Your task to perform on an android device: Empty the shopping cart on costco. Add macbook to the cart on costco Image 0: 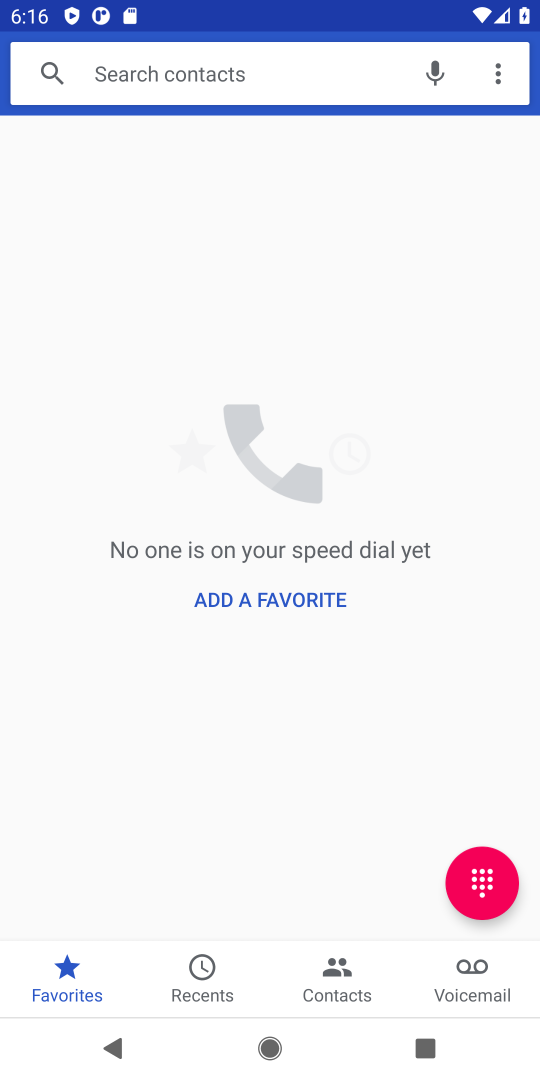
Step 0: press home button
Your task to perform on an android device: Empty the shopping cart on costco. Add macbook to the cart on costco Image 1: 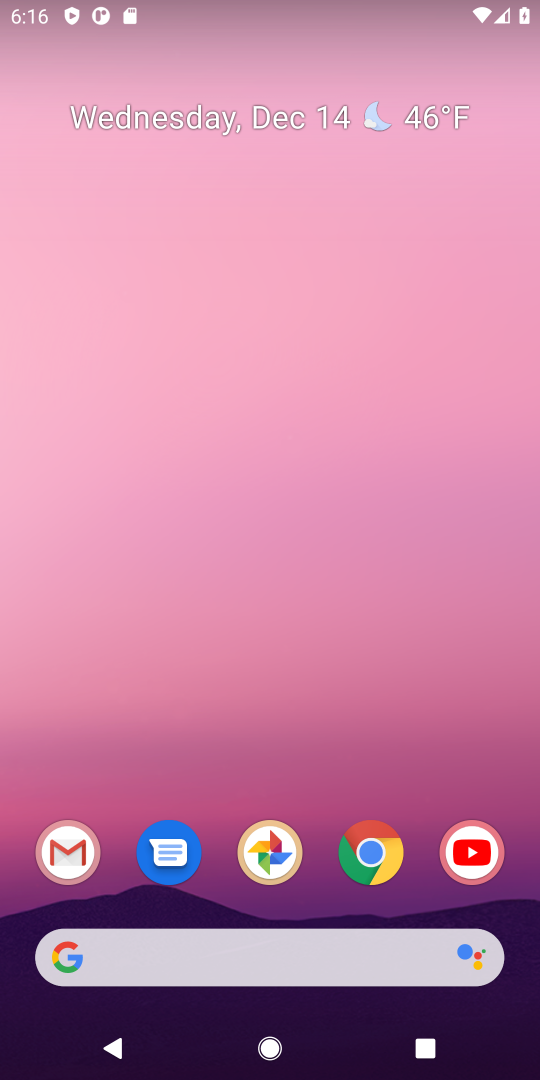
Step 1: click (364, 838)
Your task to perform on an android device: Empty the shopping cart on costco. Add macbook to the cart on costco Image 2: 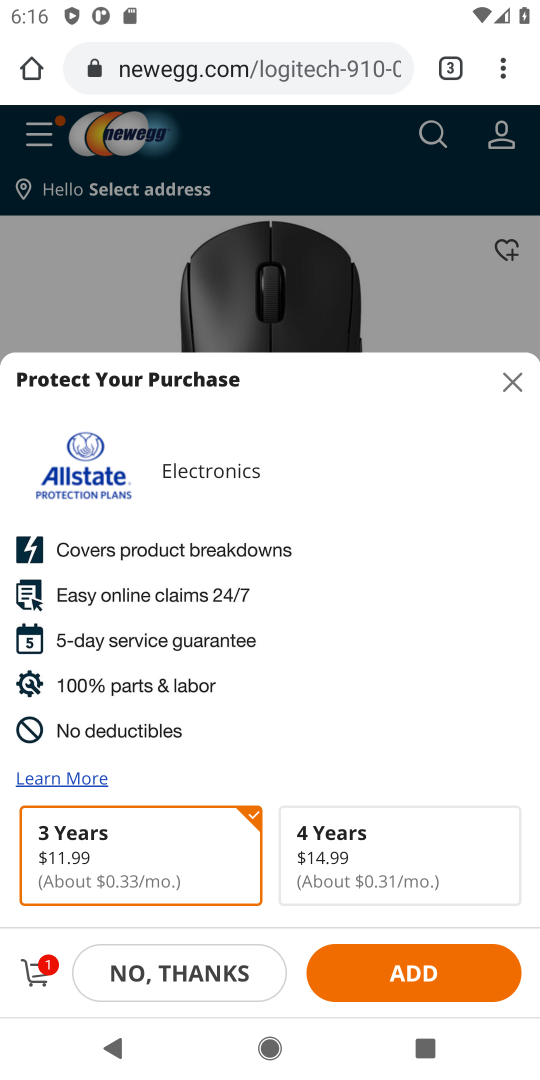
Step 2: click (452, 68)
Your task to perform on an android device: Empty the shopping cart on costco. Add macbook to the cart on costco Image 3: 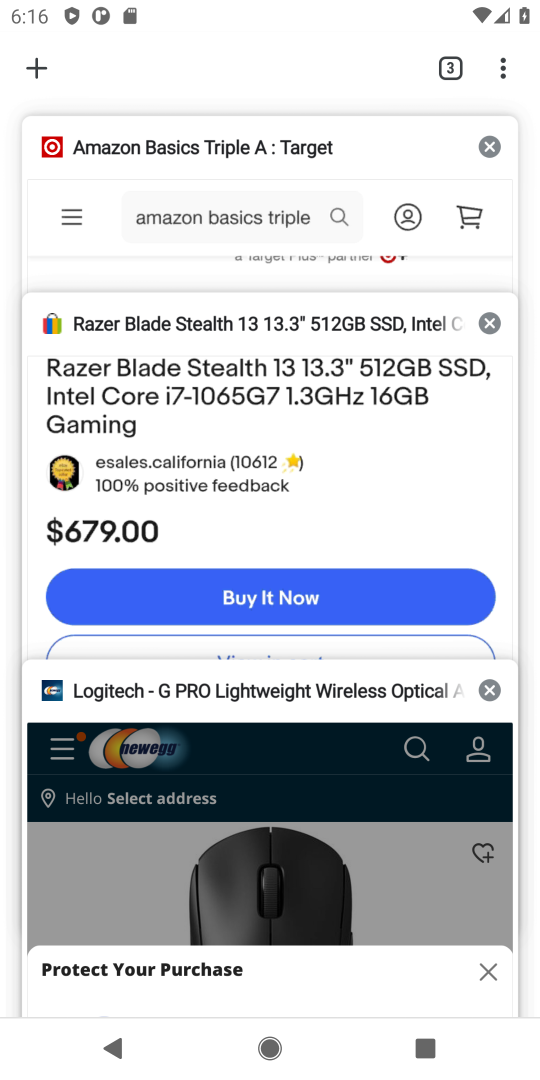
Step 3: click (30, 69)
Your task to perform on an android device: Empty the shopping cart on costco. Add macbook to the cart on costco Image 4: 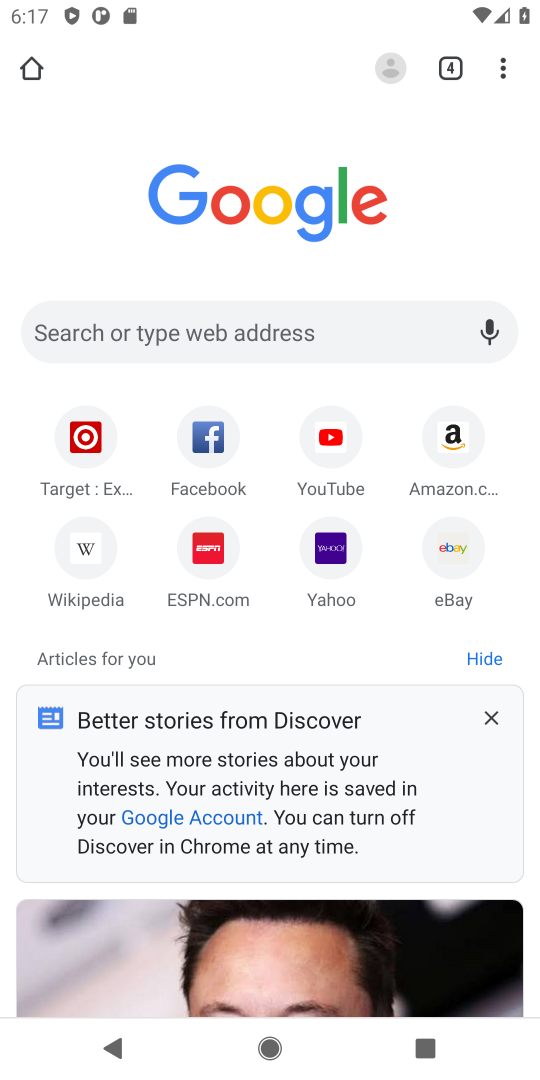
Step 4: click (184, 324)
Your task to perform on an android device: Empty the shopping cart on costco. Add macbook to the cart on costco Image 5: 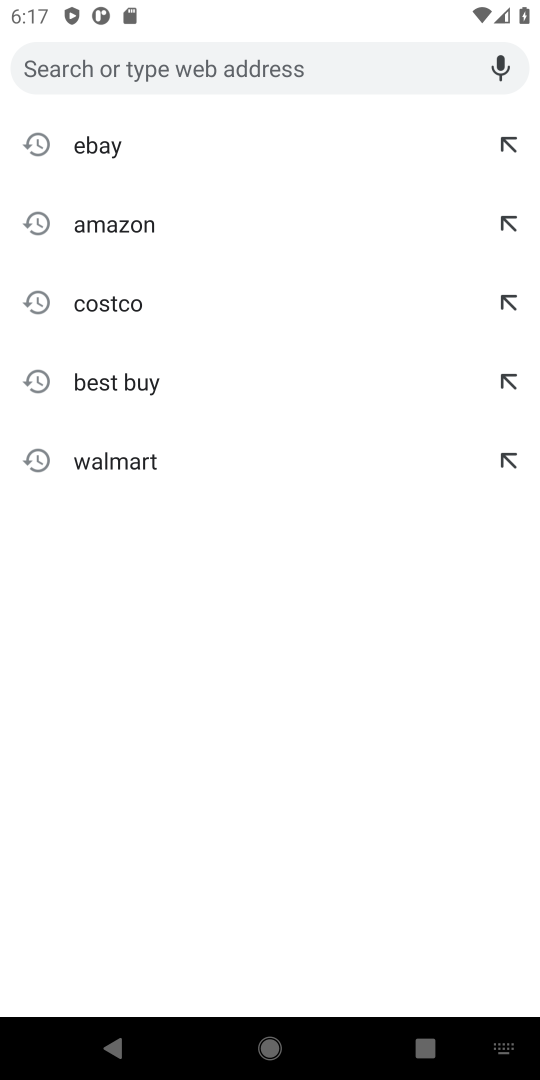
Step 5: click (108, 304)
Your task to perform on an android device: Empty the shopping cart on costco. Add macbook to the cart on costco Image 6: 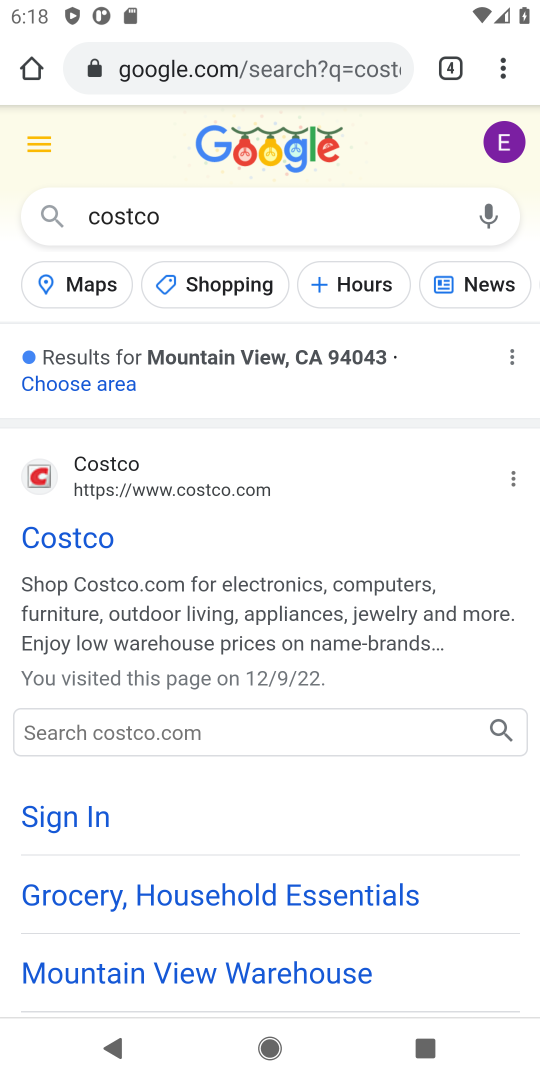
Step 6: click (76, 725)
Your task to perform on an android device: Empty the shopping cart on costco. Add macbook to the cart on costco Image 7: 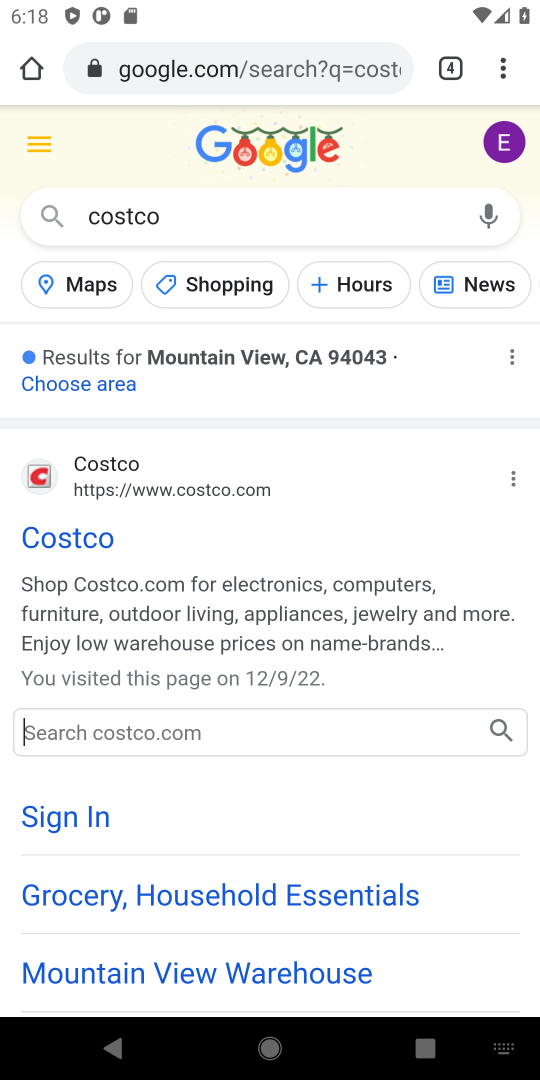
Step 7: type "macbook"
Your task to perform on an android device: Empty the shopping cart on costco. Add macbook to the cart on costco Image 8: 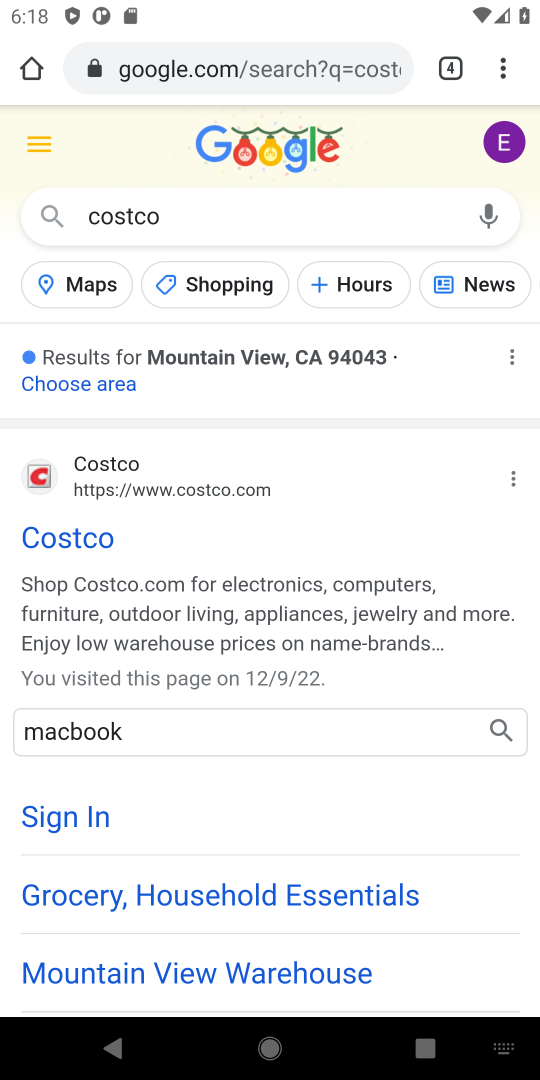
Step 8: click (495, 726)
Your task to perform on an android device: Empty the shopping cart on costco. Add macbook to the cart on costco Image 9: 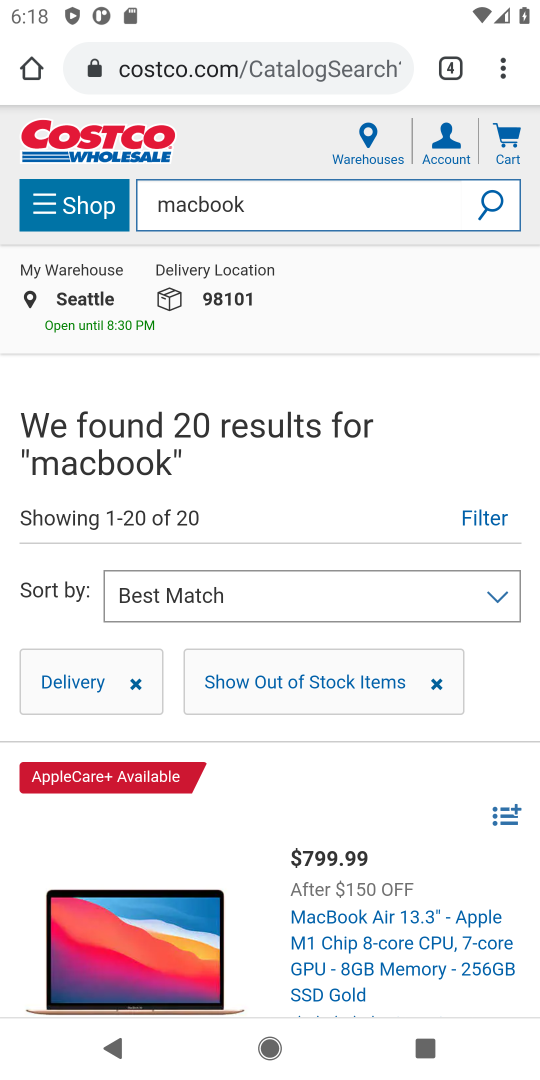
Step 9: click (353, 937)
Your task to perform on an android device: Empty the shopping cart on costco. Add macbook to the cart on costco Image 10: 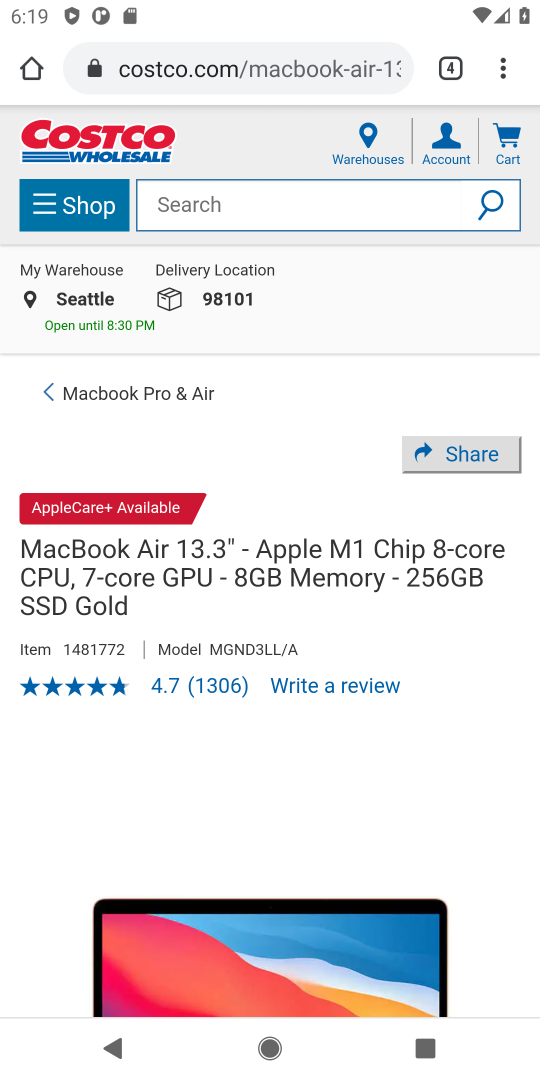
Step 10: drag from (258, 808) to (313, 110)
Your task to perform on an android device: Empty the shopping cart on costco. Add macbook to the cart on costco Image 11: 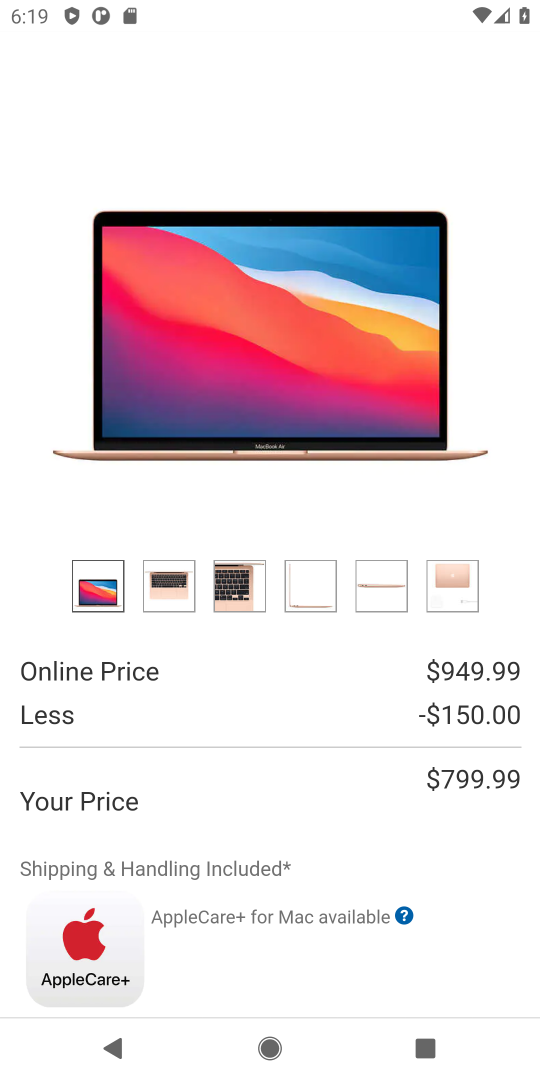
Step 11: drag from (293, 809) to (380, 178)
Your task to perform on an android device: Empty the shopping cart on costco. Add macbook to the cart on costco Image 12: 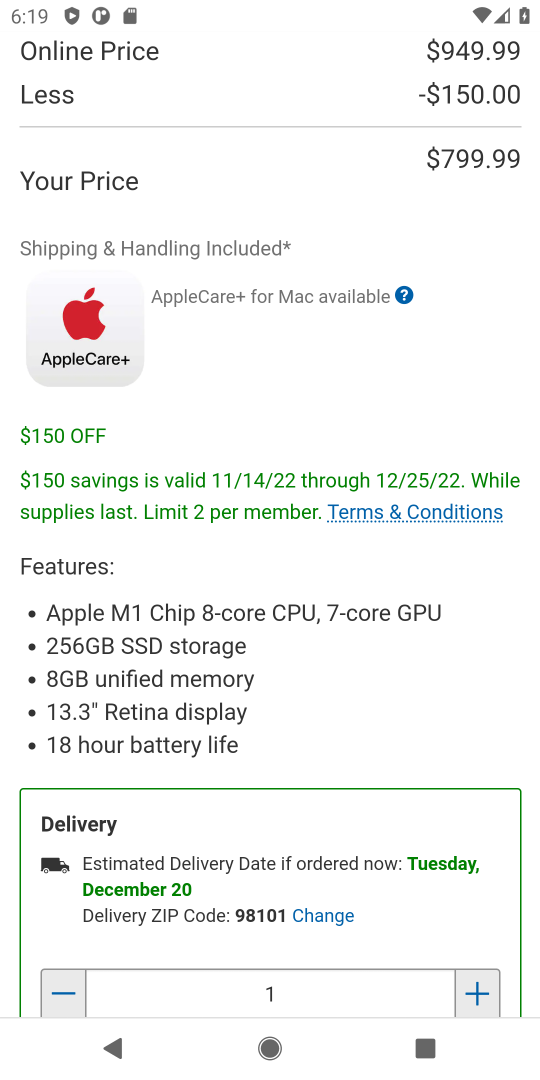
Step 12: drag from (294, 767) to (415, 295)
Your task to perform on an android device: Empty the shopping cart on costco. Add macbook to the cart on costco Image 13: 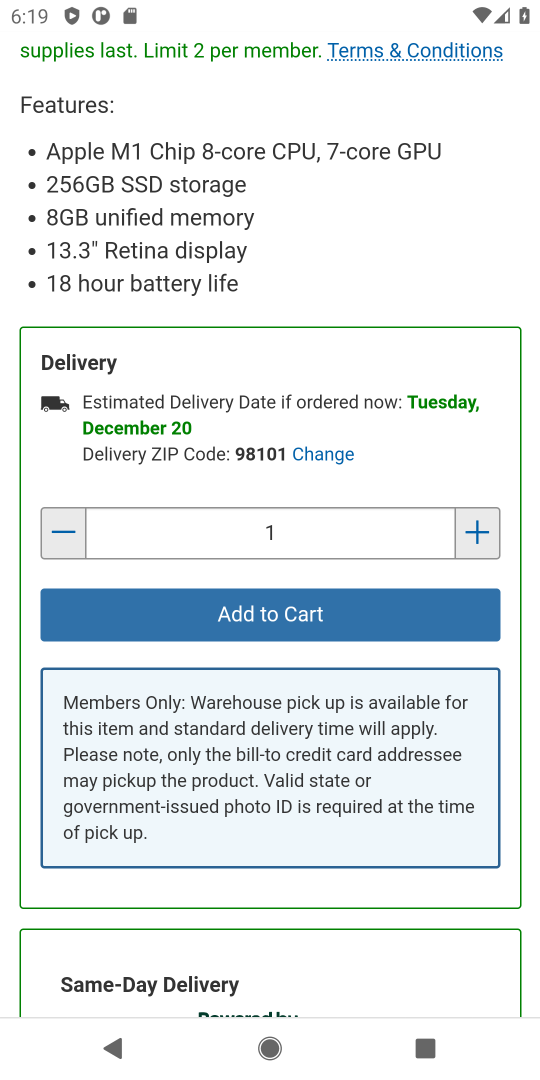
Step 13: click (244, 630)
Your task to perform on an android device: Empty the shopping cart on costco. Add macbook to the cart on costco Image 14: 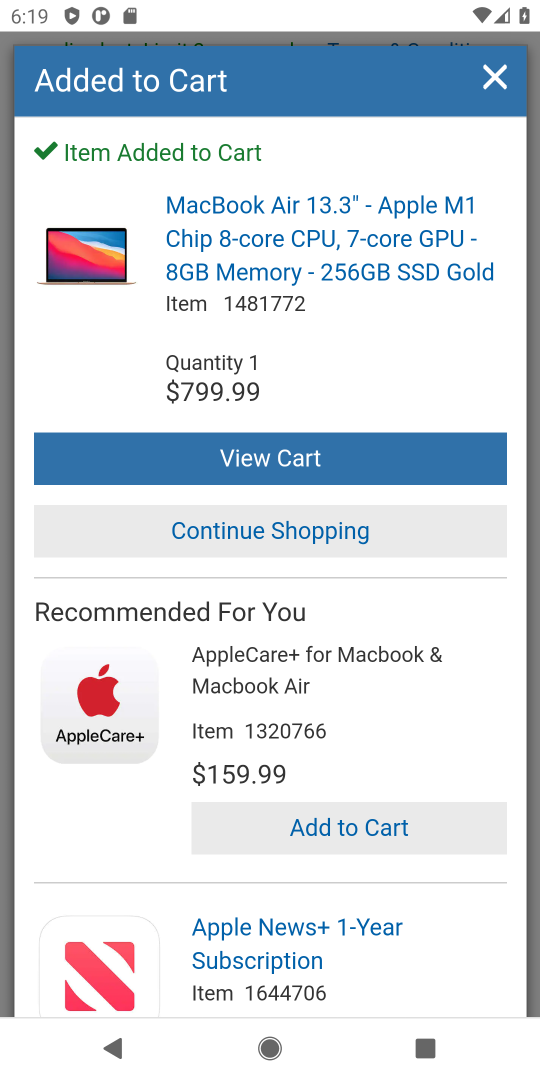
Step 14: task complete